Your task to perform on an android device: move an email to a new category in the gmail app Image 0: 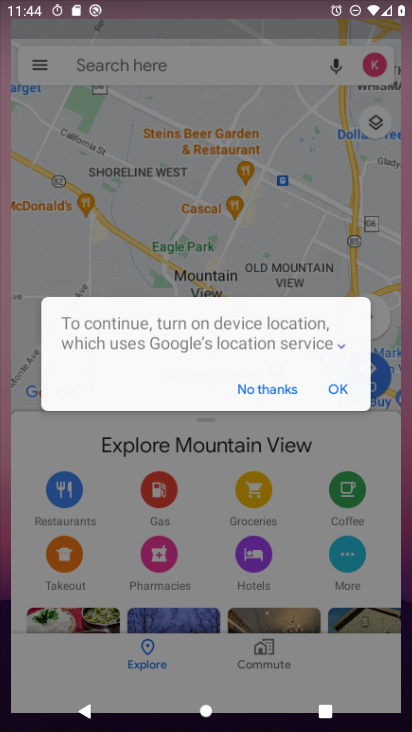
Step 0: drag from (289, 334) to (324, 10)
Your task to perform on an android device: move an email to a new category in the gmail app Image 1: 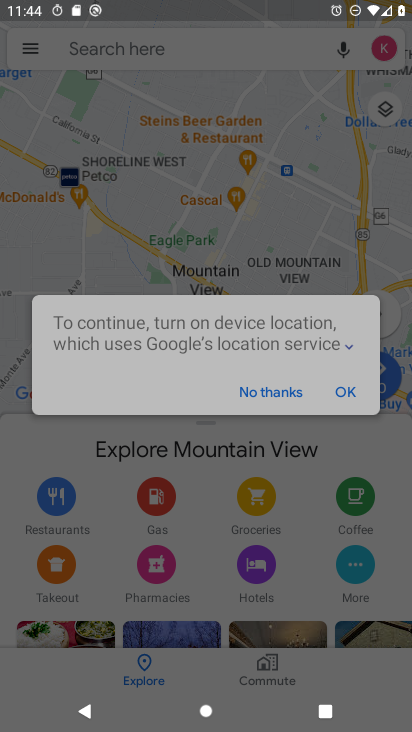
Step 1: press back button
Your task to perform on an android device: move an email to a new category in the gmail app Image 2: 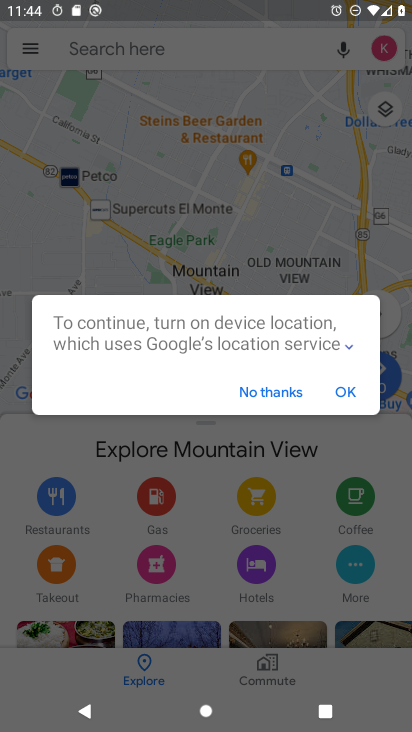
Step 2: press home button
Your task to perform on an android device: move an email to a new category in the gmail app Image 3: 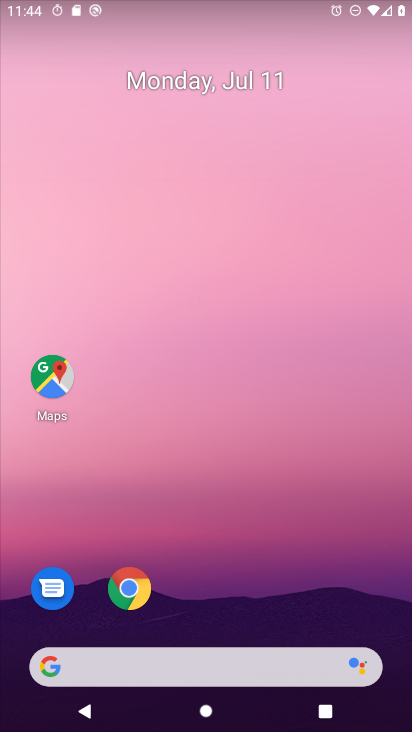
Step 3: drag from (209, 582) to (300, 33)
Your task to perform on an android device: move an email to a new category in the gmail app Image 4: 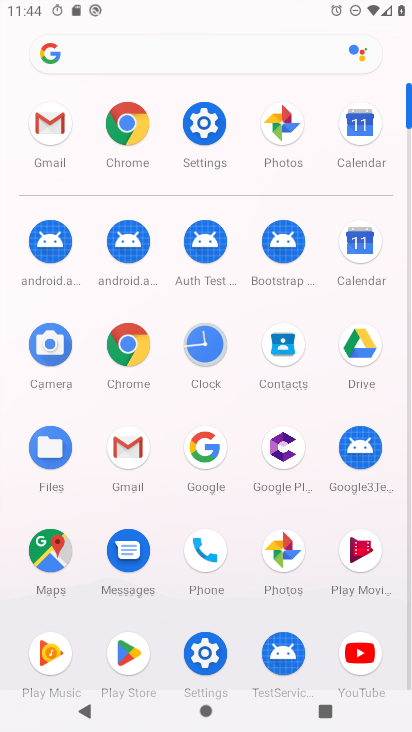
Step 4: click (55, 124)
Your task to perform on an android device: move an email to a new category in the gmail app Image 5: 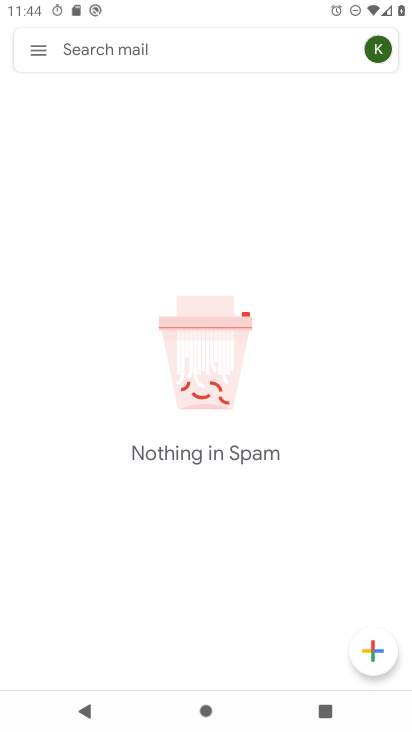
Step 5: click (38, 58)
Your task to perform on an android device: move an email to a new category in the gmail app Image 6: 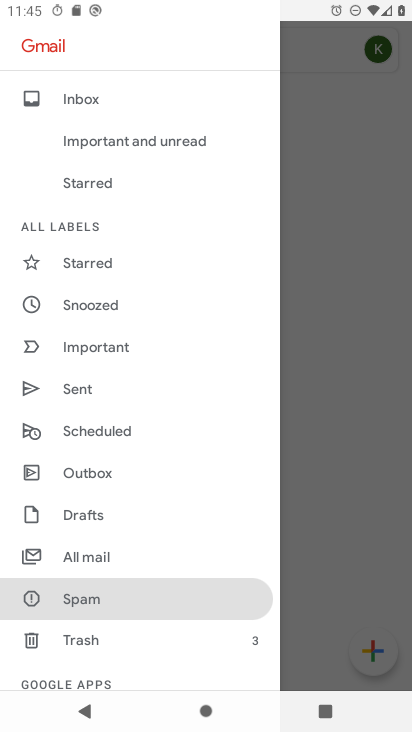
Step 6: click (114, 553)
Your task to perform on an android device: move an email to a new category in the gmail app Image 7: 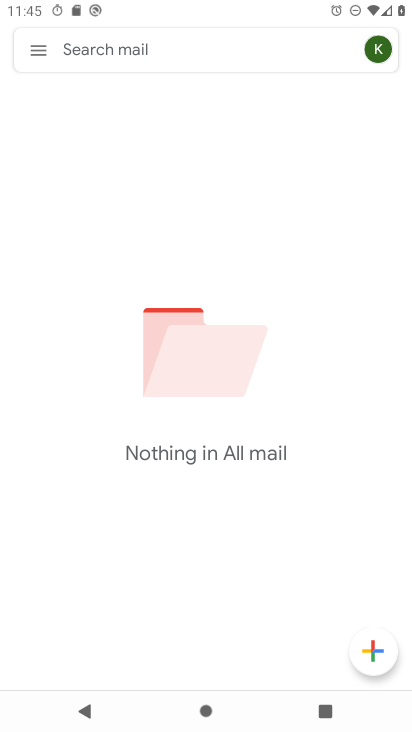
Step 7: task complete